Your task to perform on an android device: Go to Reddit.com Image 0: 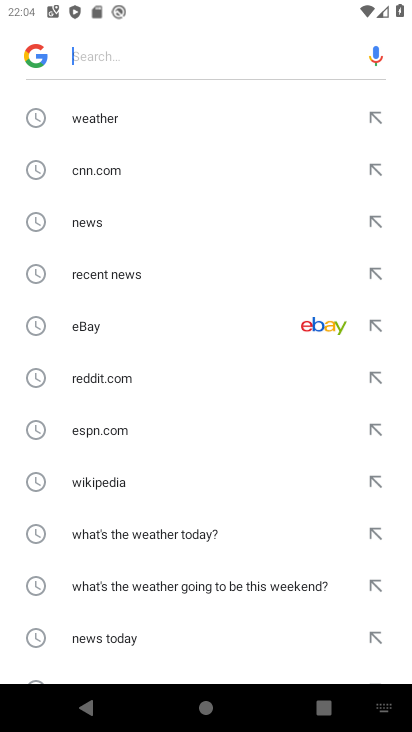
Step 0: press home button
Your task to perform on an android device: Go to Reddit.com Image 1: 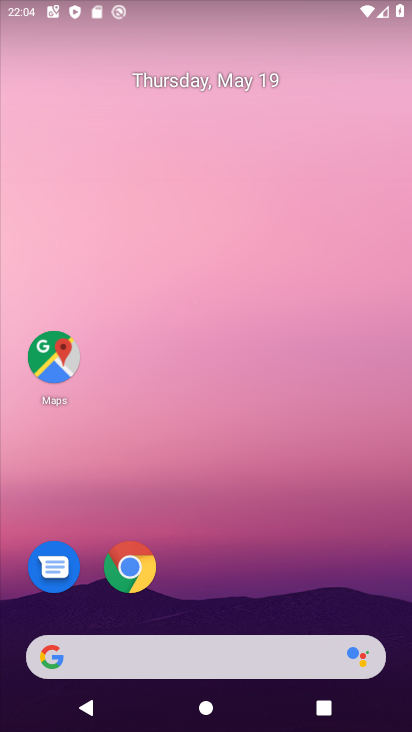
Step 1: click (124, 557)
Your task to perform on an android device: Go to Reddit.com Image 2: 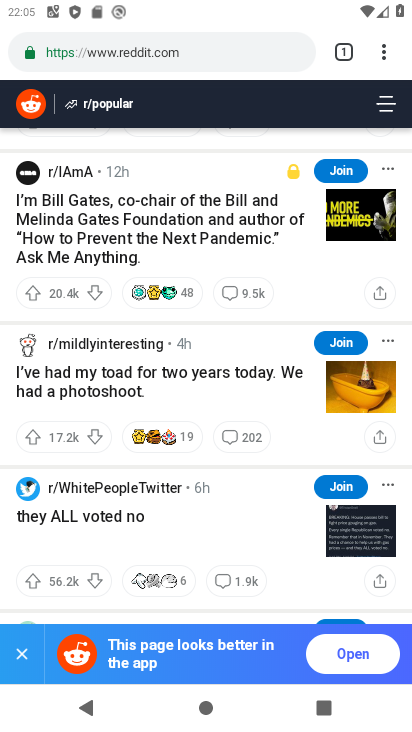
Step 2: task complete